Your task to perform on an android device: toggle priority inbox in the gmail app Image 0: 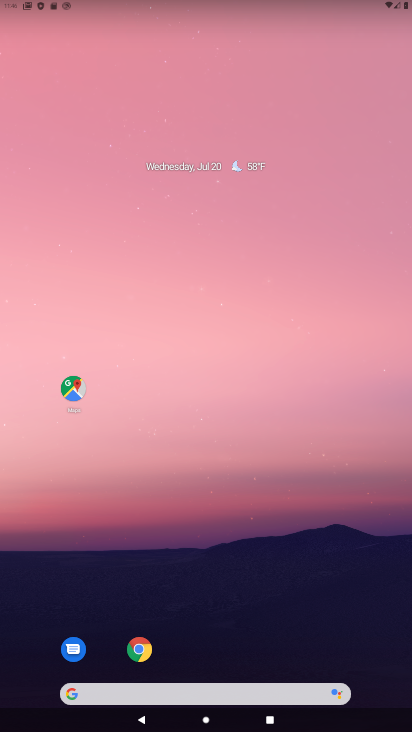
Step 0: drag from (180, 644) to (190, 62)
Your task to perform on an android device: toggle priority inbox in the gmail app Image 1: 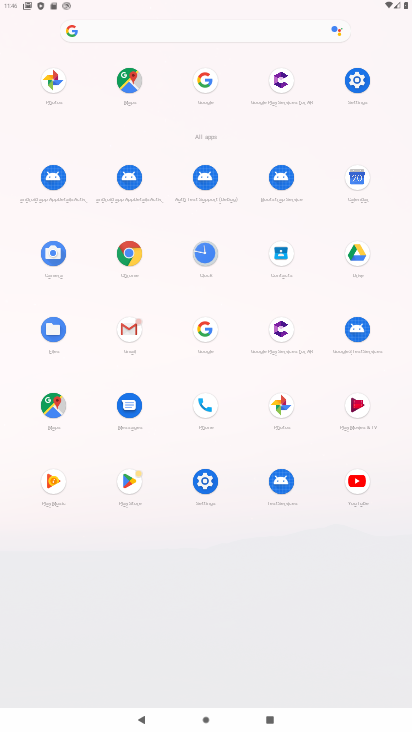
Step 1: click (130, 325)
Your task to perform on an android device: toggle priority inbox in the gmail app Image 2: 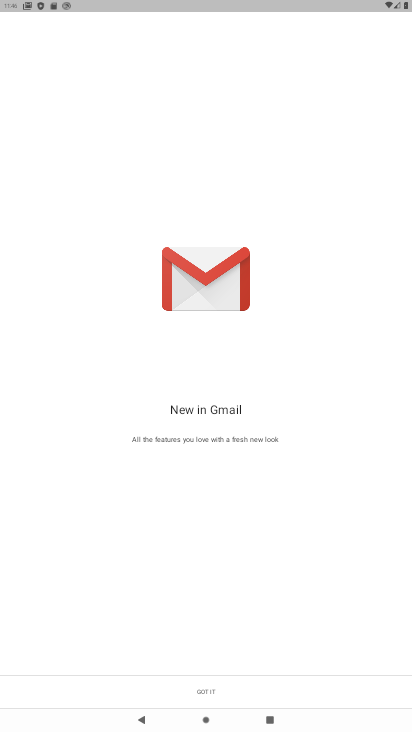
Step 2: click (212, 688)
Your task to perform on an android device: toggle priority inbox in the gmail app Image 3: 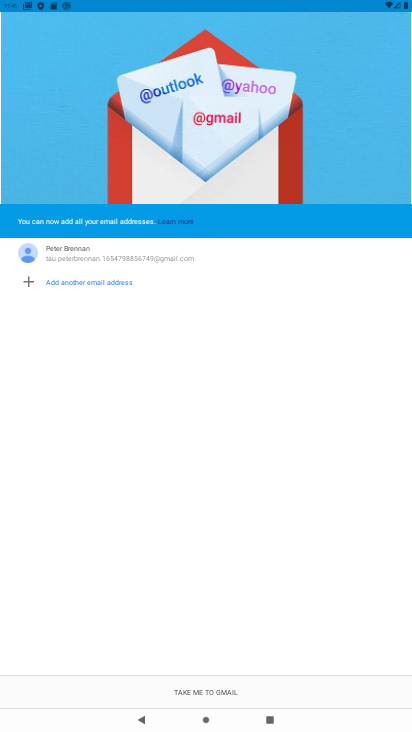
Step 3: click (190, 689)
Your task to perform on an android device: toggle priority inbox in the gmail app Image 4: 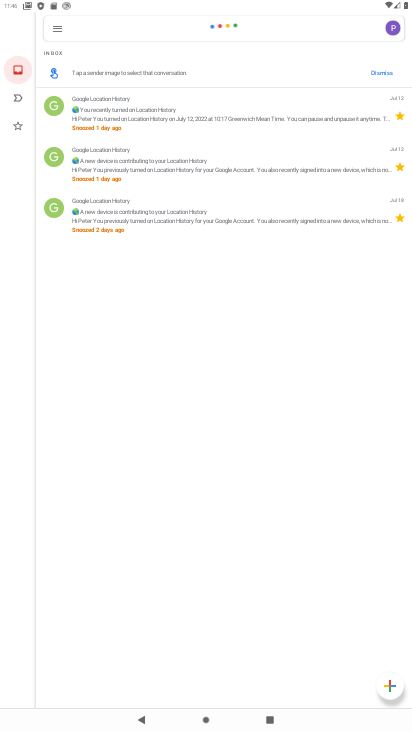
Step 4: click (56, 34)
Your task to perform on an android device: toggle priority inbox in the gmail app Image 5: 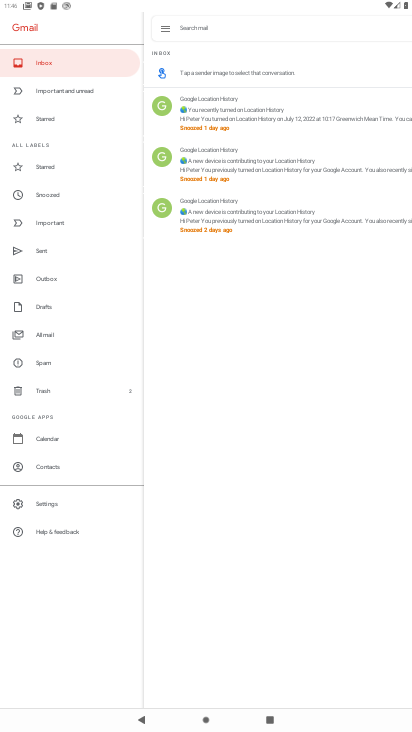
Step 5: click (54, 502)
Your task to perform on an android device: toggle priority inbox in the gmail app Image 6: 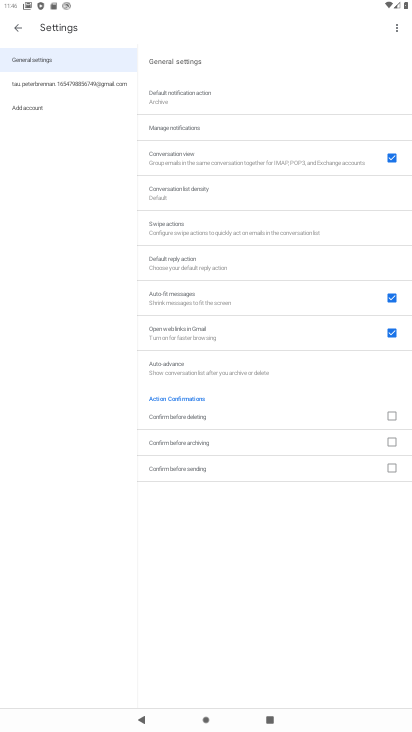
Step 6: click (57, 86)
Your task to perform on an android device: toggle priority inbox in the gmail app Image 7: 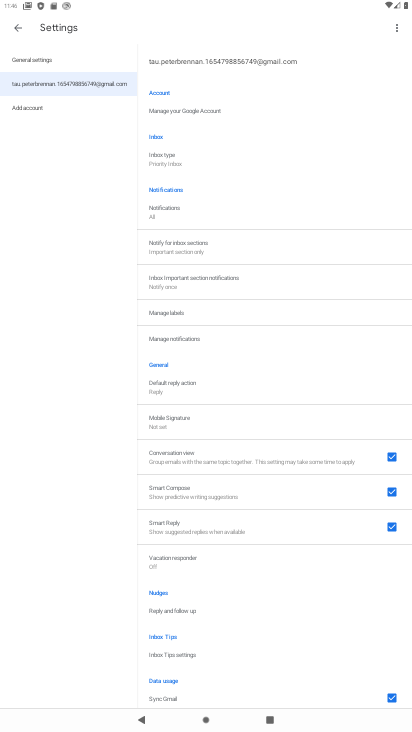
Step 7: click (175, 160)
Your task to perform on an android device: toggle priority inbox in the gmail app Image 8: 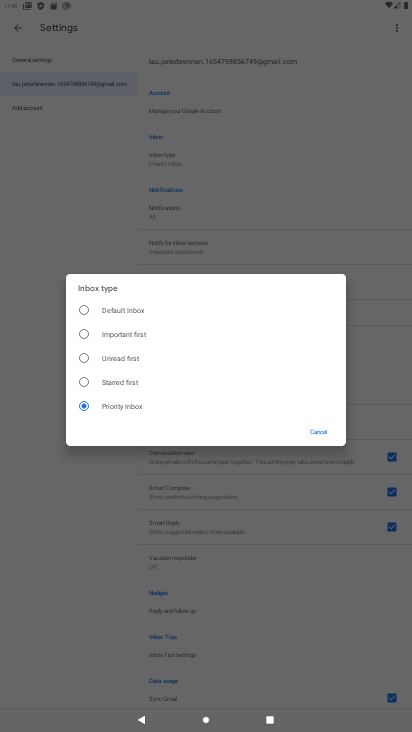
Step 8: click (80, 312)
Your task to perform on an android device: toggle priority inbox in the gmail app Image 9: 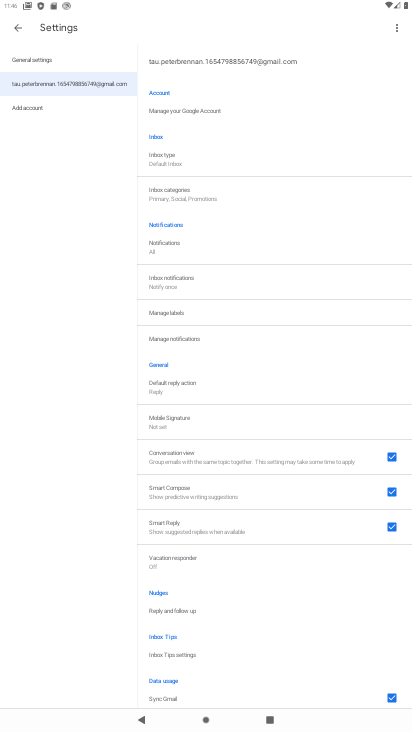
Step 9: task complete